Your task to perform on an android device: Open Chrome and go to settings Image 0: 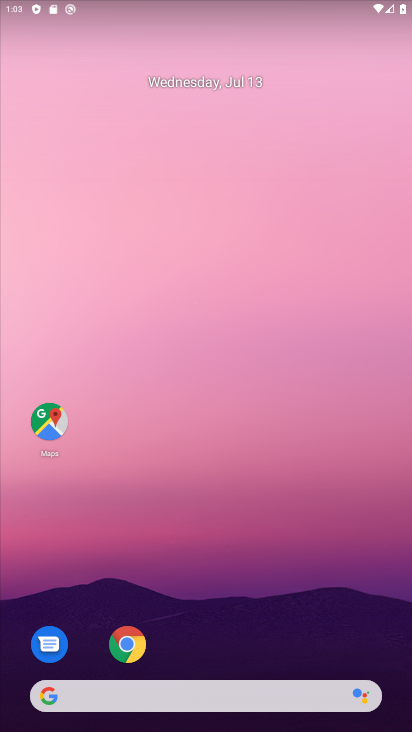
Step 0: press home button
Your task to perform on an android device: Open Chrome and go to settings Image 1: 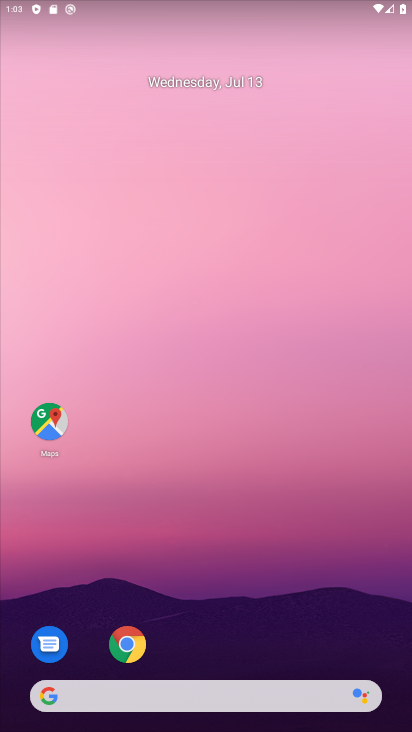
Step 1: click (123, 647)
Your task to perform on an android device: Open Chrome and go to settings Image 2: 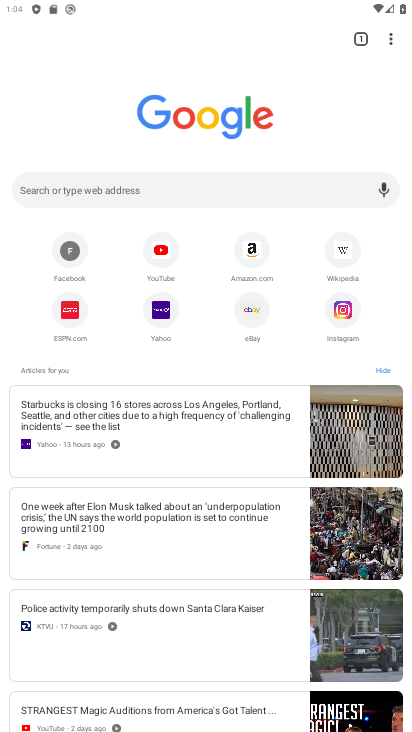
Step 2: task complete